Your task to perform on an android device: Open ESPN.com Image 0: 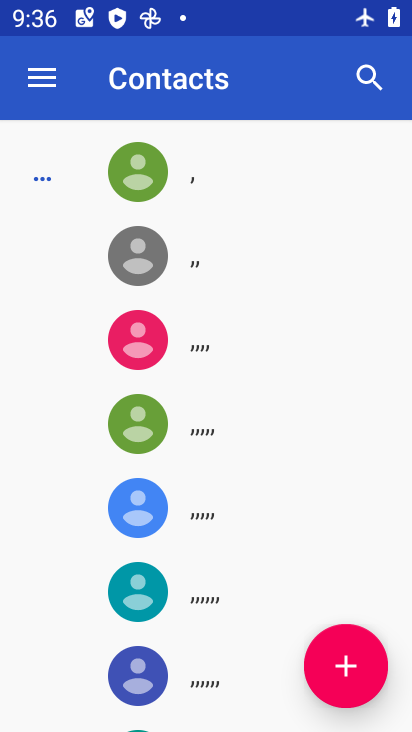
Step 0: press home button
Your task to perform on an android device: Open ESPN.com Image 1: 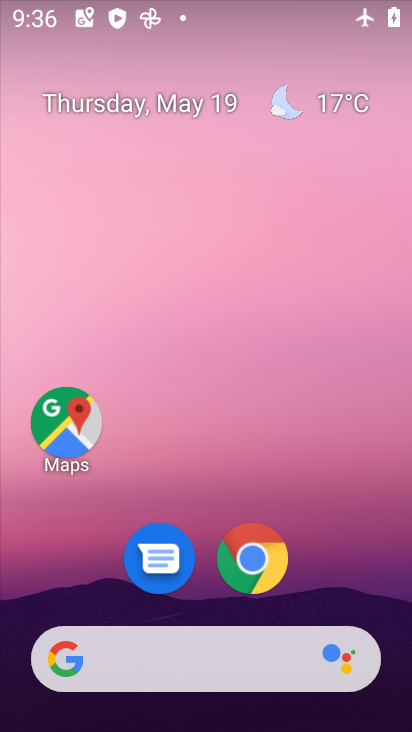
Step 1: click (258, 555)
Your task to perform on an android device: Open ESPN.com Image 2: 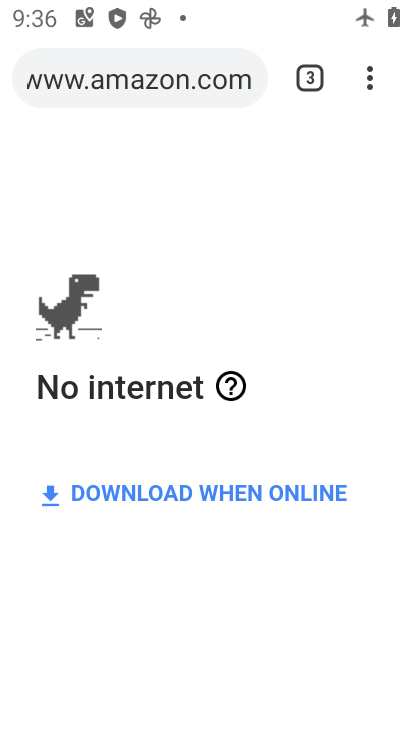
Step 2: click (371, 86)
Your task to perform on an android device: Open ESPN.com Image 3: 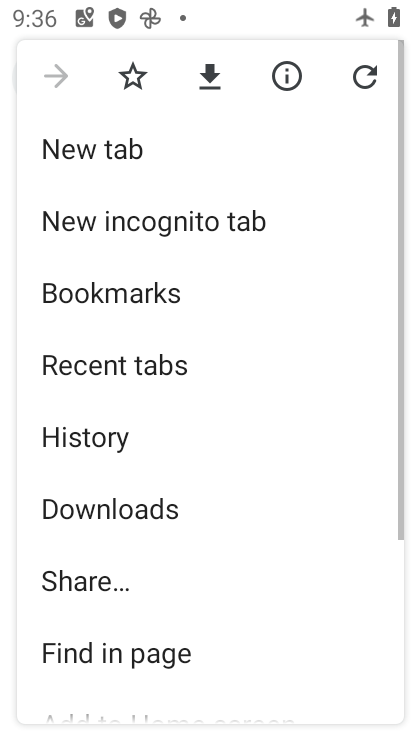
Step 3: click (84, 151)
Your task to perform on an android device: Open ESPN.com Image 4: 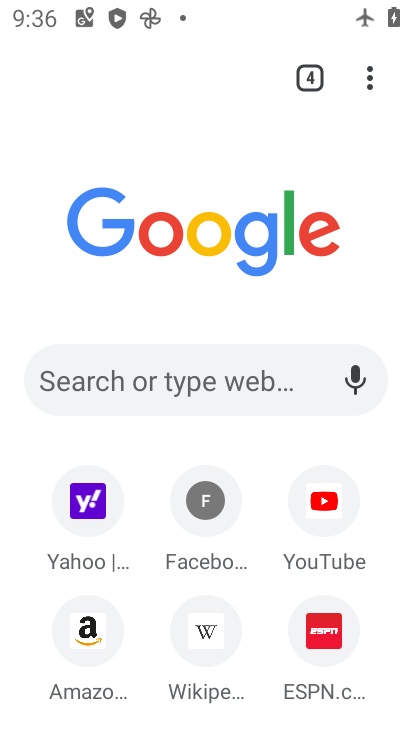
Step 4: click (327, 652)
Your task to perform on an android device: Open ESPN.com Image 5: 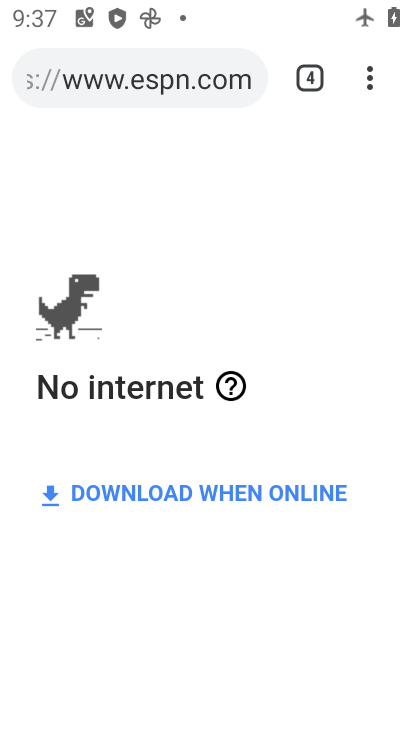
Step 5: task complete